Your task to perform on an android device: Open Chrome and go to the settings page Image 0: 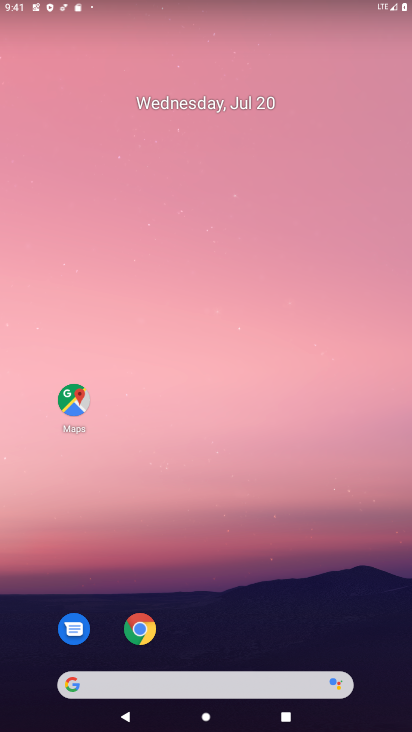
Step 0: click (119, 636)
Your task to perform on an android device: Open Chrome and go to the settings page Image 1: 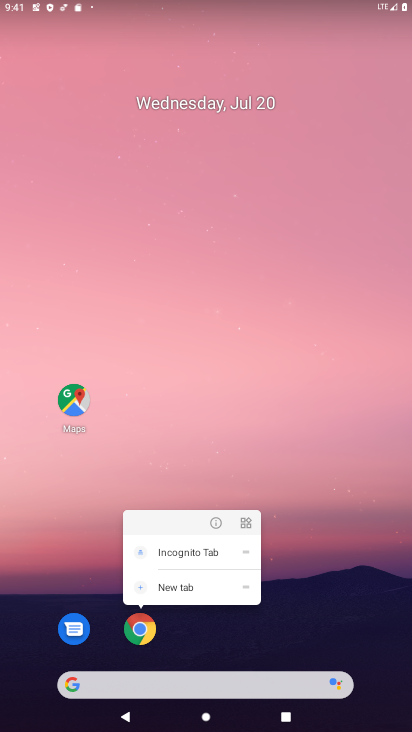
Step 1: click (119, 636)
Your task to perform on an android device: Open Chrome and go to the settings page Image 2: 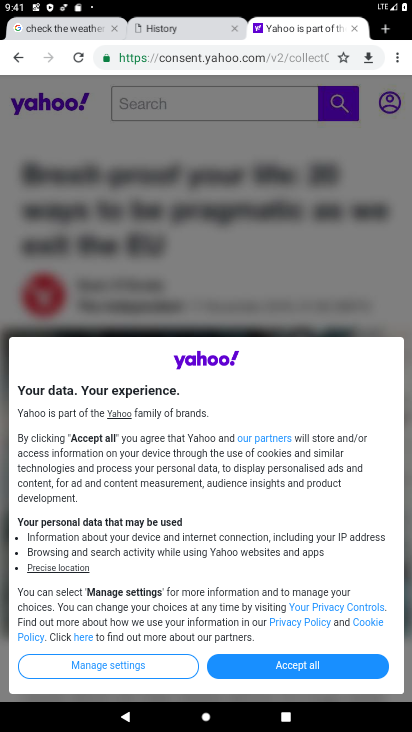
Step 2: task complete